Your task to perform on an android device: turn off notifications settings in the gmail app Image 0: 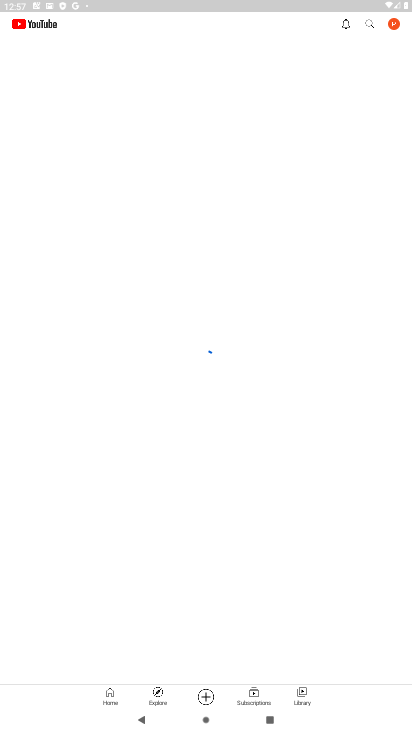
Step 0: press home button
Your task to perform on an android device: turn off notifications settings in the gmail app Image 1: 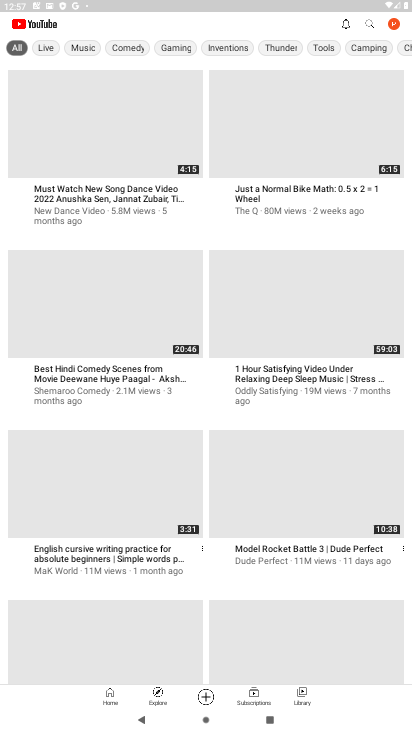
Step 1: drag from (373, 576) to (334, 27)
Your task to perform on an android device: turn off notifications settings in the gmail app Image 2: 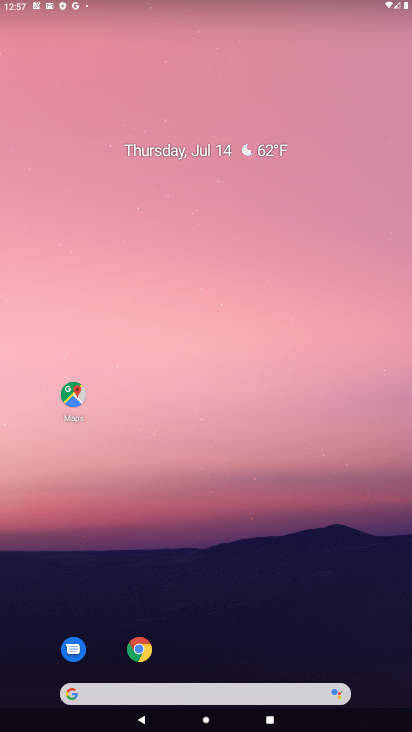
Step 2: drag from (356, 651) to (278, 77)
Your task to perform on an android device: turn off notifications settings in the gmail app Image 3: 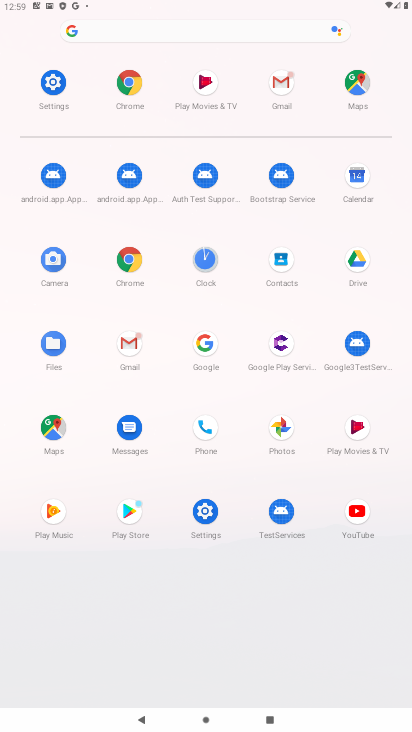
Step 3: click (133, 344)
Your task to perform on an android device: turn off notifications settings in the gmail app Image 4: 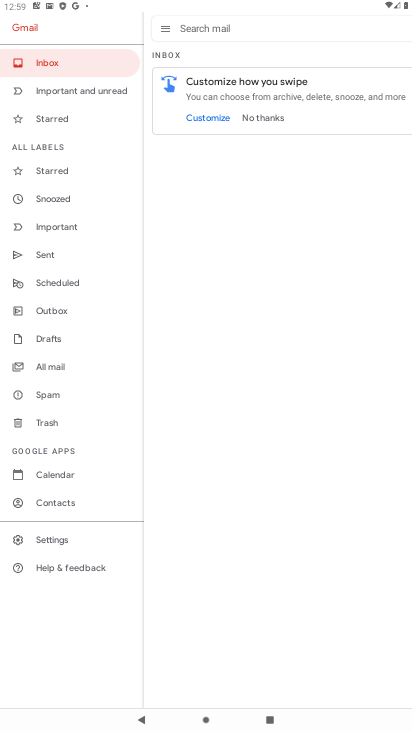
Step 4: click (36, 536)
Your task to perform on an android device: turn off notifications settings in the gmail app Image 5: 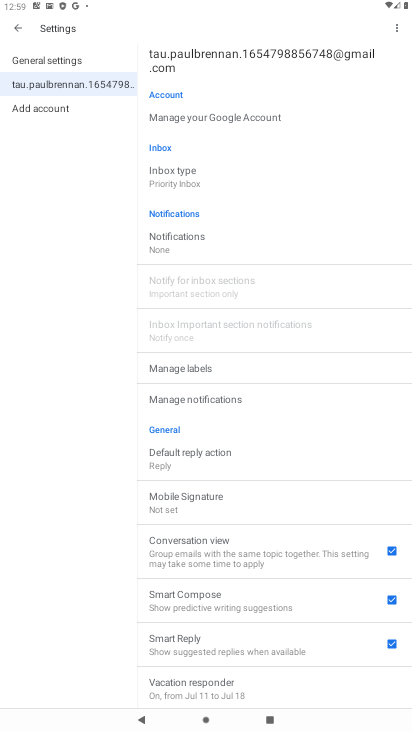
Step 5: click (170, 232)
Your task to perform on an android device: turn off notifications settings in the gmail app Image 6: 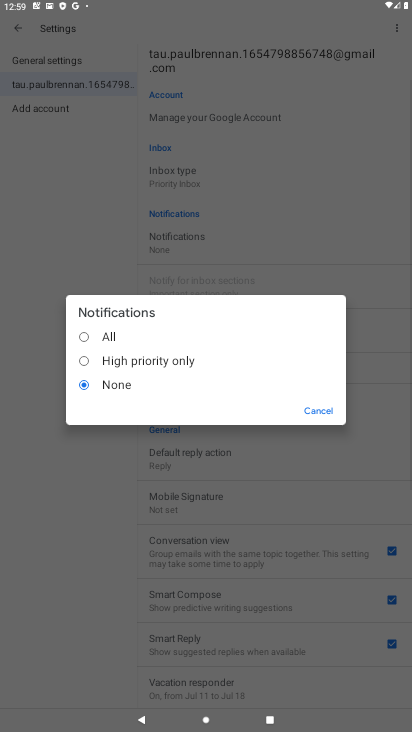
Step 6: task complete